Your task to perform on an android device: open a bookmark in the chrome app Image 0: 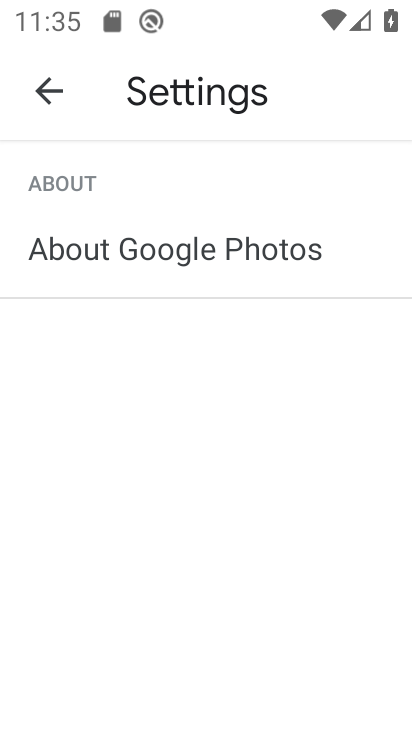
Step 0: press home button
Your task to perform on an android device: open a bookmark in the chrome app Image 1: 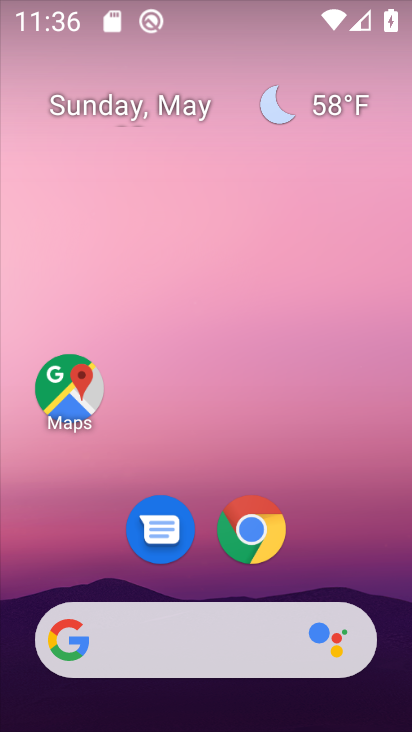
Step 1: click (259, 551)
Your task to perform on an android device: open a bookmark in the chrome app Image 2: 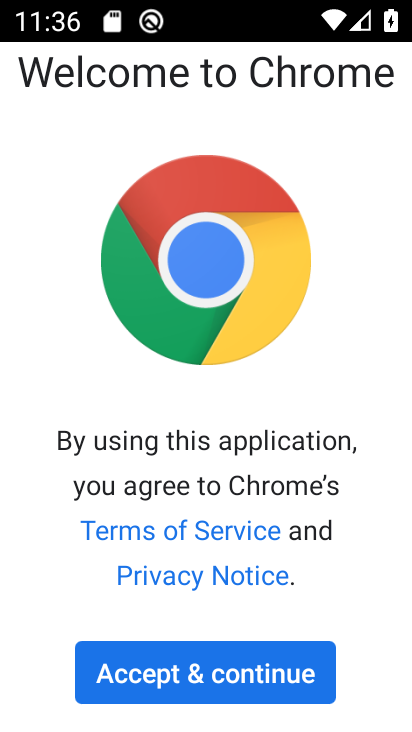
Step 2: click (150, 684)
Your task to perform on an android device: open a bookmark in the chrome app Image 3: 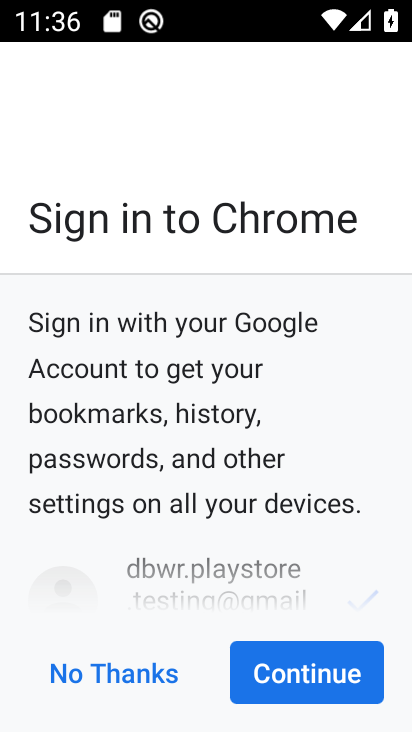
Step 3: click (229, 669)
Your task to perform on an android device: open a bookmark in the chrome app Image 4: 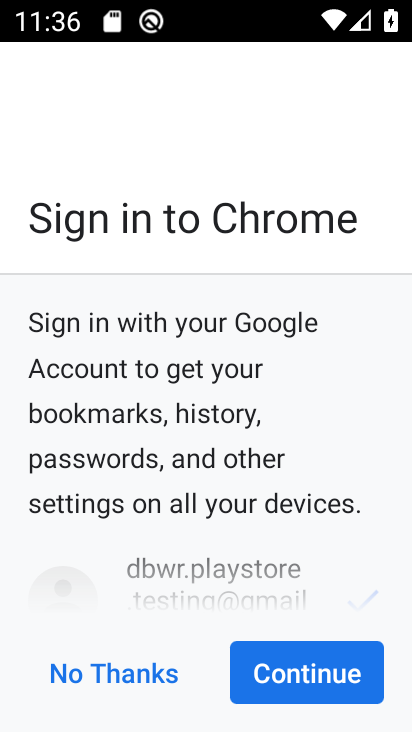
Step 4: click (301, 672)
Your task to perform on an android device: open a bookmark in the chrome app Image 5: 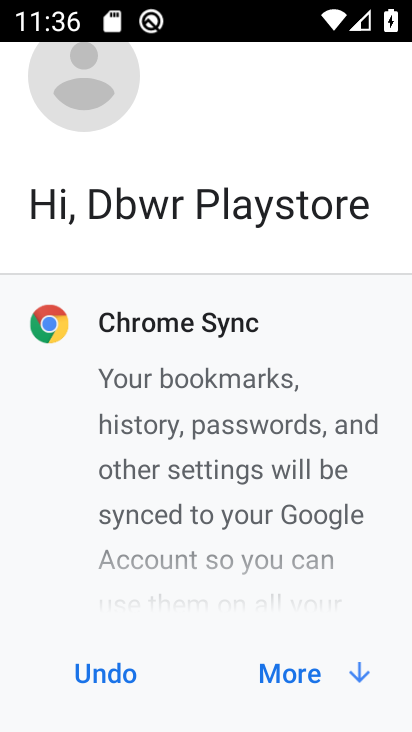
Step 5: click (301, 672)
Your task to perform on an android device: open a bookmark in the chrome app Image 6: 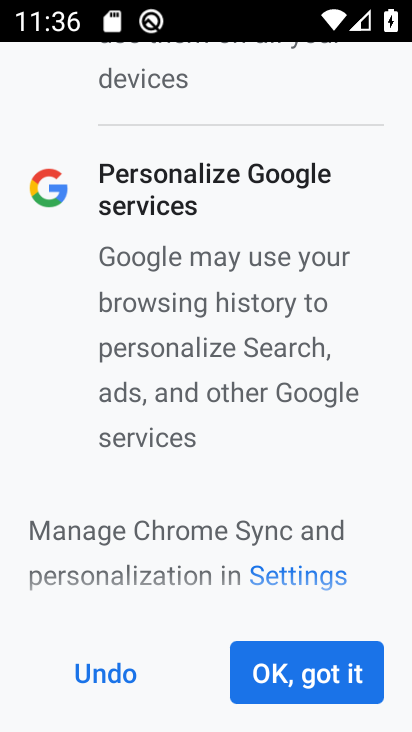
Step 6: click (301, 672)
Your task to perform on an android device: open a bookmark in the chrome app Image 7: 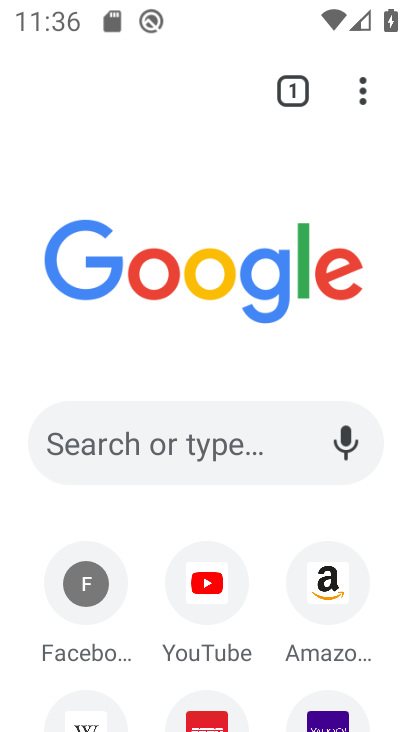
Step 7: task complete